Your task to perform on an android device: turn on translation in the chrome app Image 0: 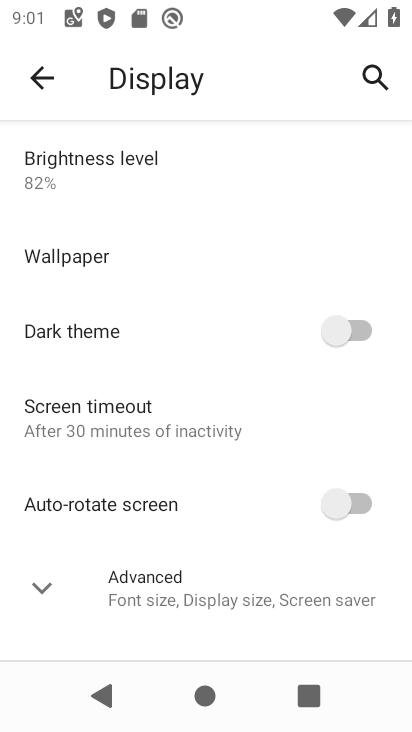
Step 0: press home button
Your task to perform on an android device: turn on translation in the chrome app Image 1: 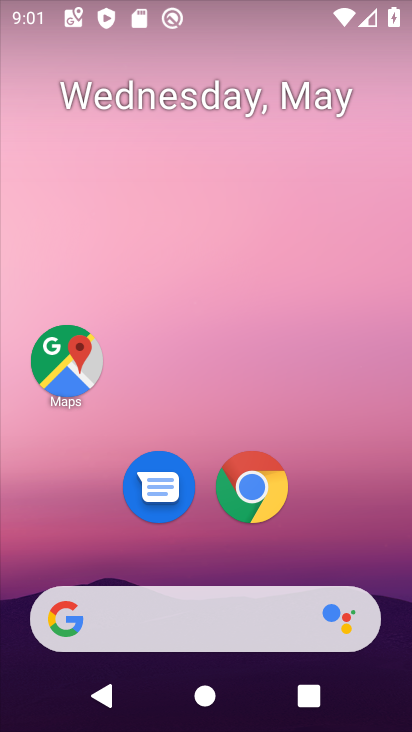
Step 1: click (259, 492)
Your task to perform on an android device: turn on translation in the chrome app Image 2: 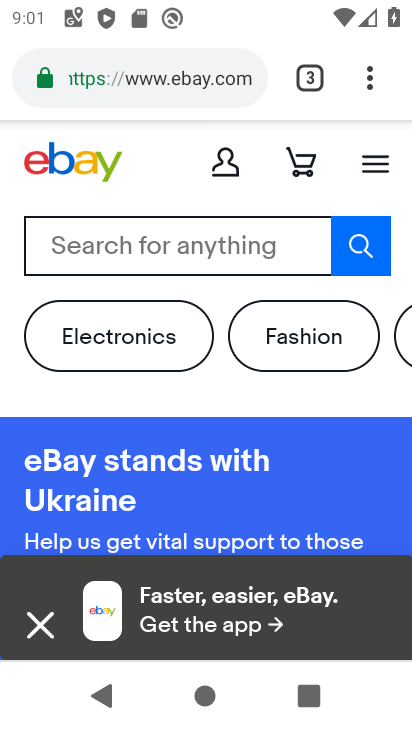
Step 2: click (369, 77)
Your task to perform on an android device: turn on translation in the chrome app Image 3: 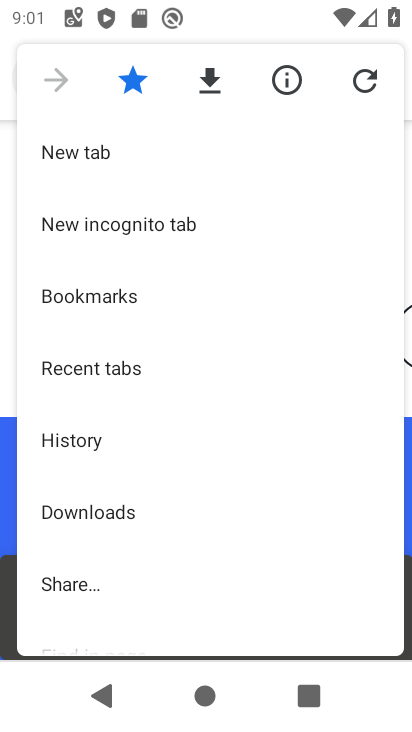
Step 3: drag from (213, 473) to (167, 281)
Your task to perform on an android device: turn on translation in the chrome app Image 4: 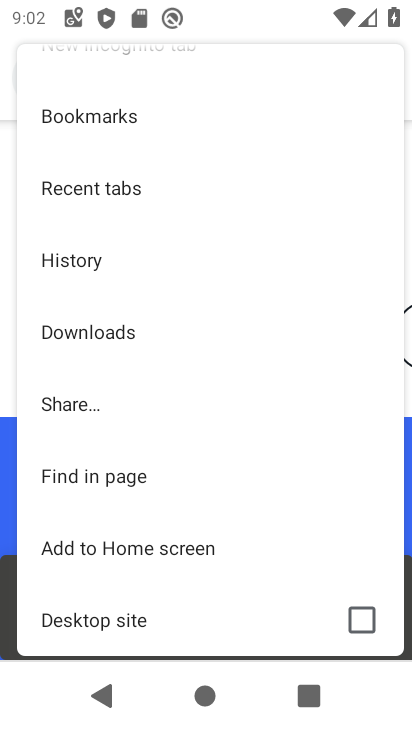
Step 4: drag from (244, 573) to (187, 271)
Your task to perform on an android device: turn on translation in the chrome app Image 5: 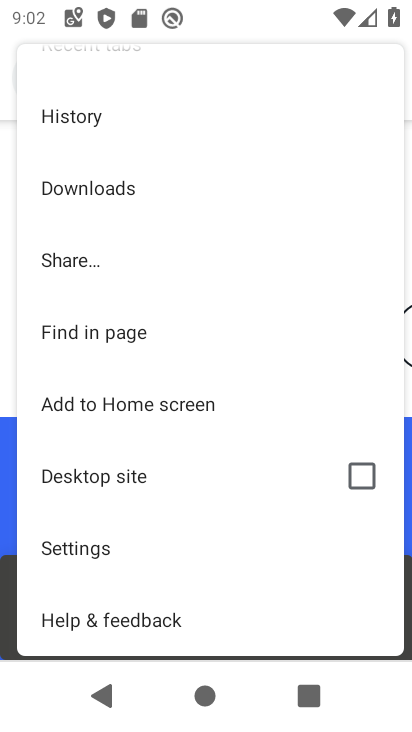
Step 5: click (99, 549)
Your task to perform on an android device: turn on translation in the chrome app Image 6: 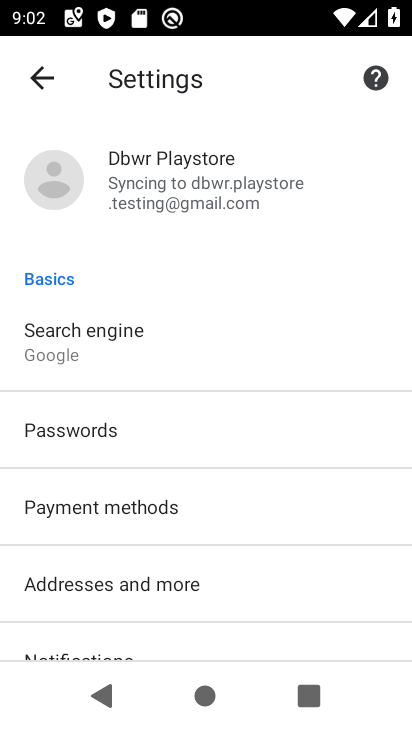
Step 6: drag from (257, 547) to (195, 231)
Your task to perform on an android device: turn on translation in the chrome app Image 7: 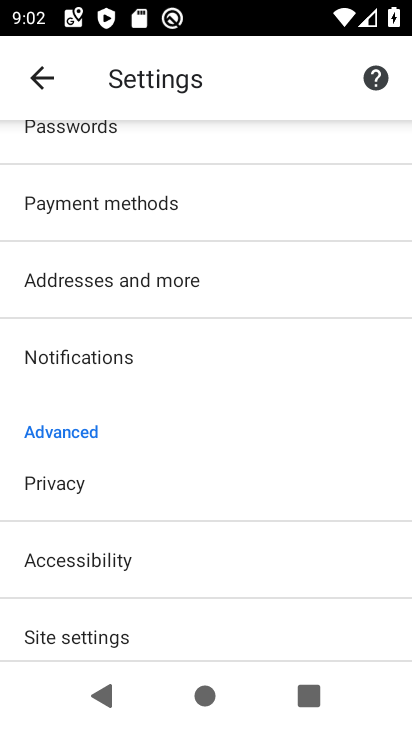
Step 7: drag from (215, 570) to (157, 309)
Your task to perform on an android device: turn on translation in the chrome app Image 8: 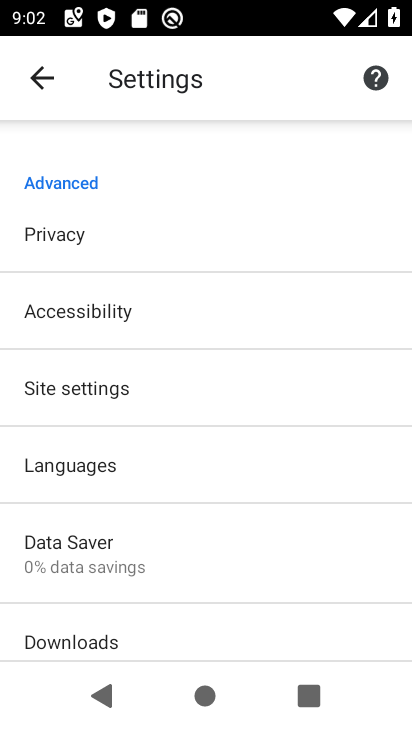
Step 8: click (85, 458)
Your task to perform on an android device: turn on translation in the chrome app Image 9: 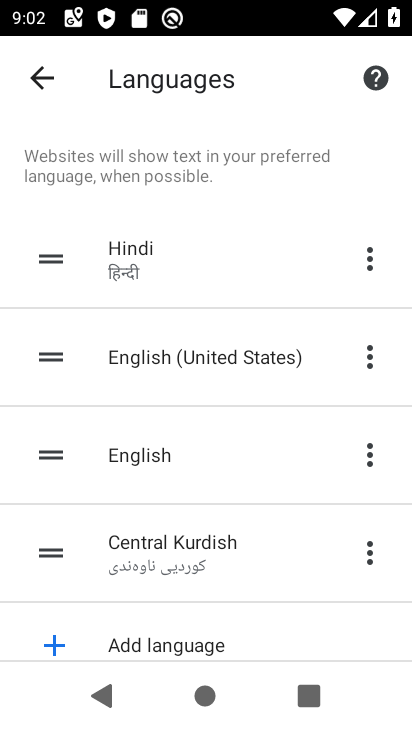
Step 9: drag from (287, 619) to (162, 233)
Your task to perform on an android device: turn on translation in the chrome app Image 10: 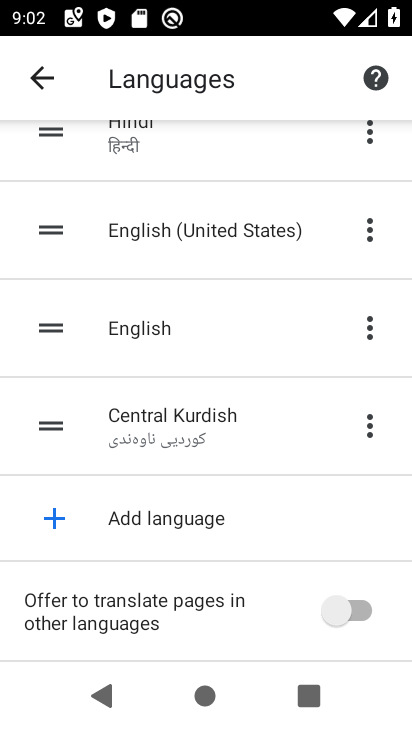
Step 10: click (344, 601)
Your task to perform on an android device: turn on translation in the chrome app Image 11: 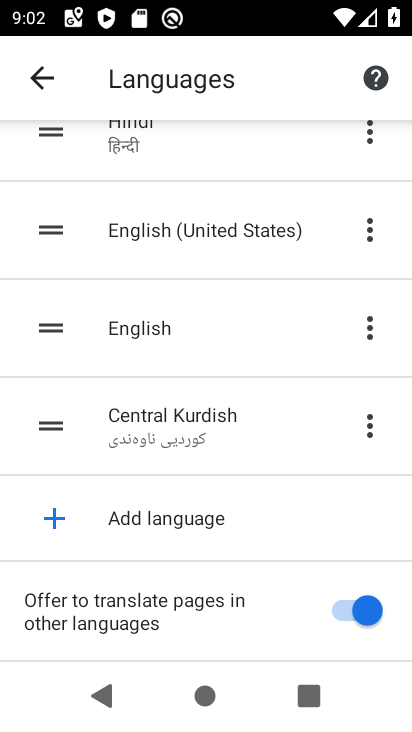
Step 11: task complete